Your task to perform on an android device: check out phone information Image 0: 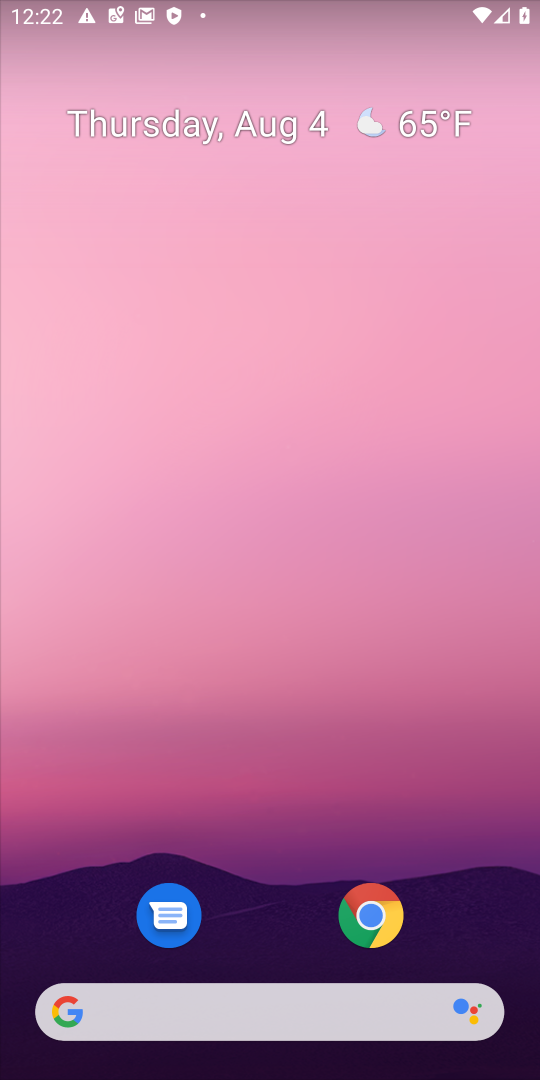
Step 0: drag from (271, 852) to (335, 55)
Your task to perform on an android device: check out phone information Image 1: 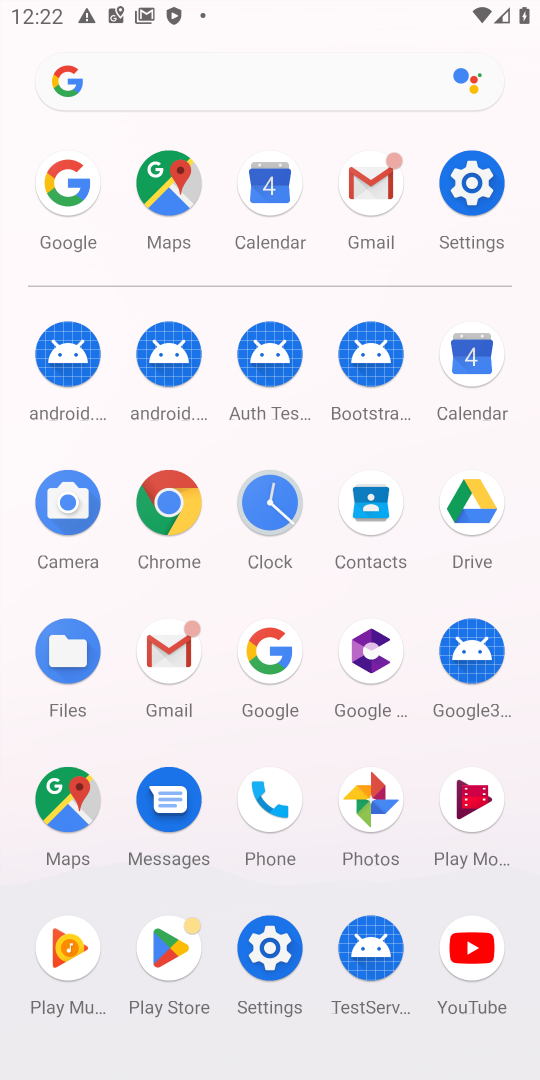
Step 1: click (474, 177)
Your task to perform on an android device: check out phone information Image 2: 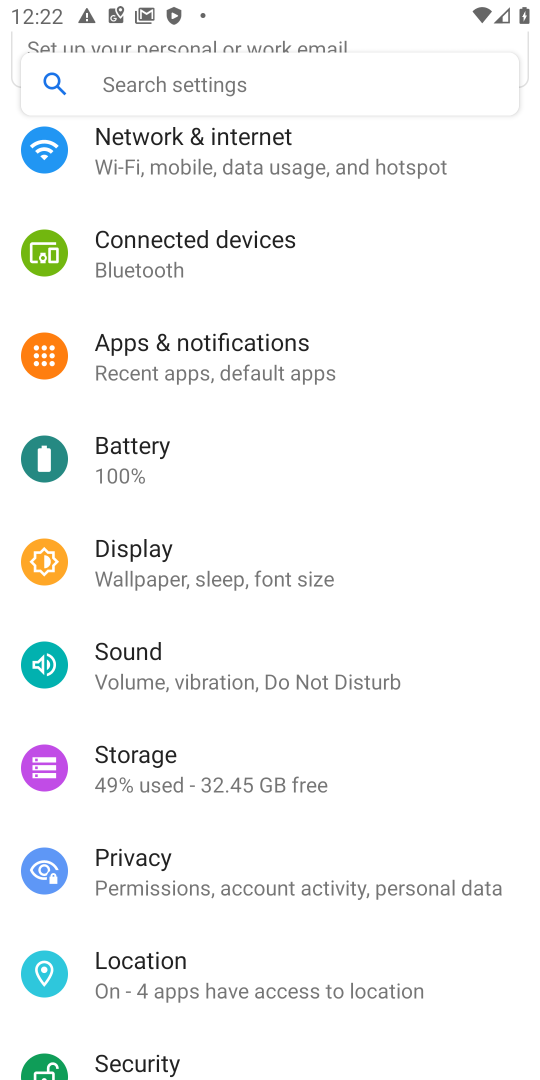
Step 2: drag from (214, 699) to (217, 241)
Your task to perform on an android device: check out phone information Image 3: 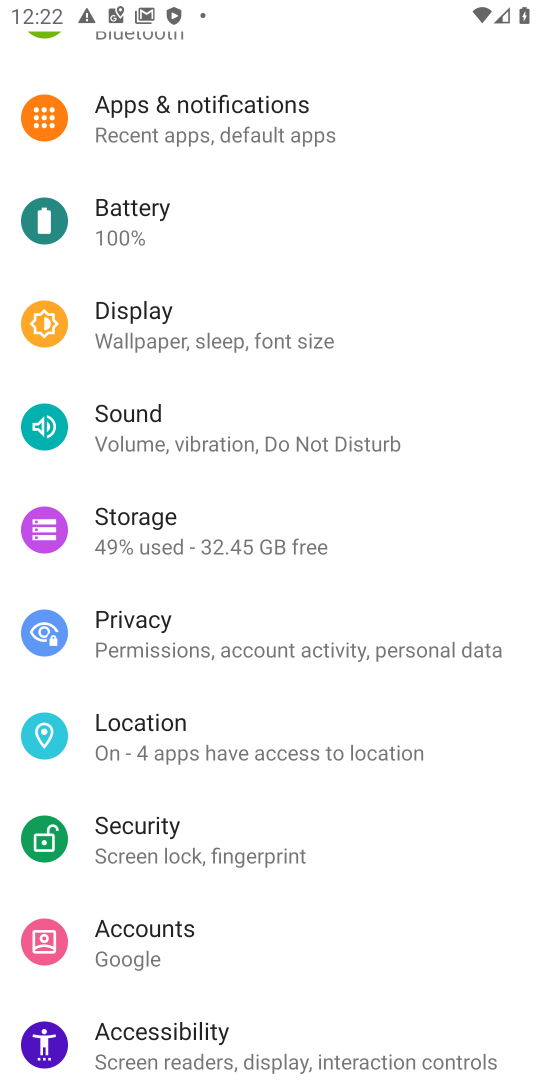
Step 3: drag from (239, 611) to (246, 450)
Your task to perform on an android device: check out phone information Image 4: 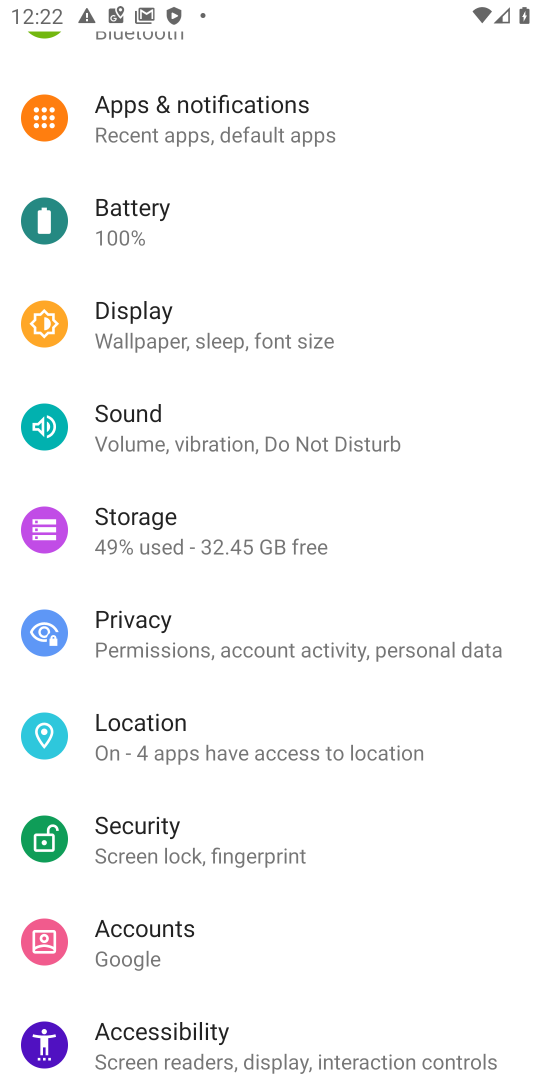
Step 4: drag from (280, 827) to (213, 637)
Your task to perform on an android device: check out phone information Image 5: 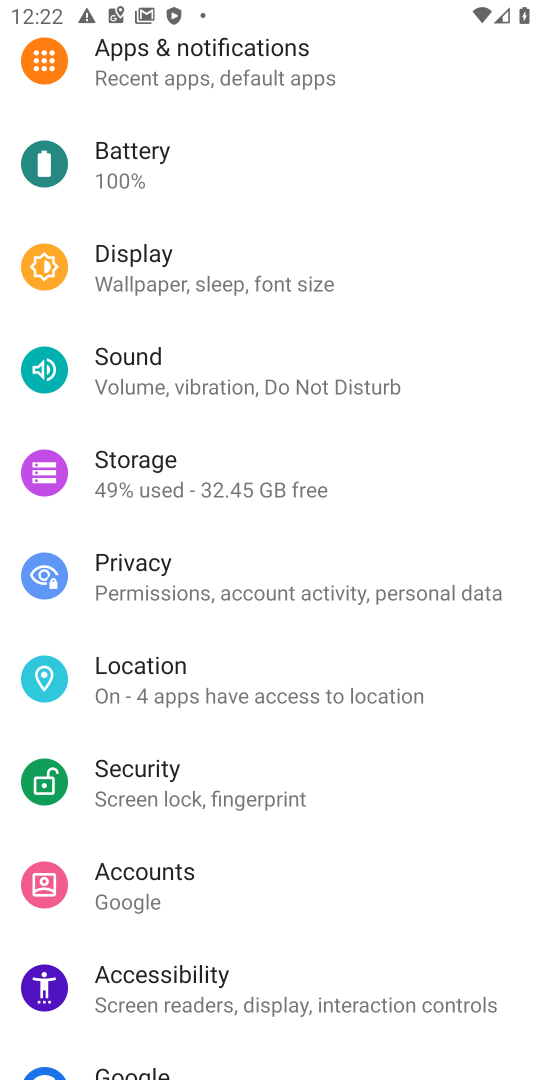
Step 5: drag from (270, 959) to (257, 809)
Your task to perform on an android device: check out phone information Image 6: 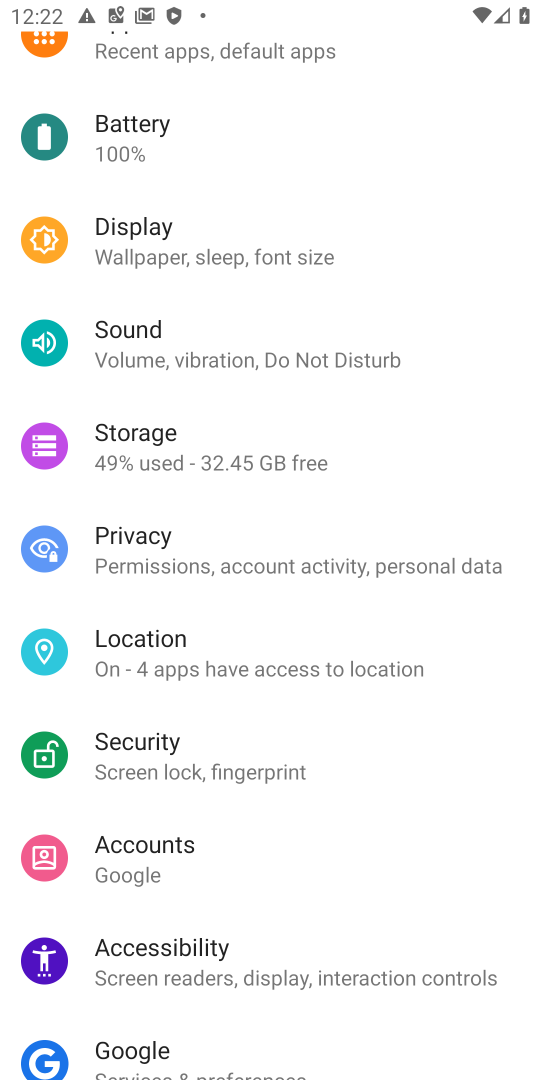
Step 6: drag from (279, 920) to (276, 731)
Your task to perform on an android device: check out phone information Image 7: 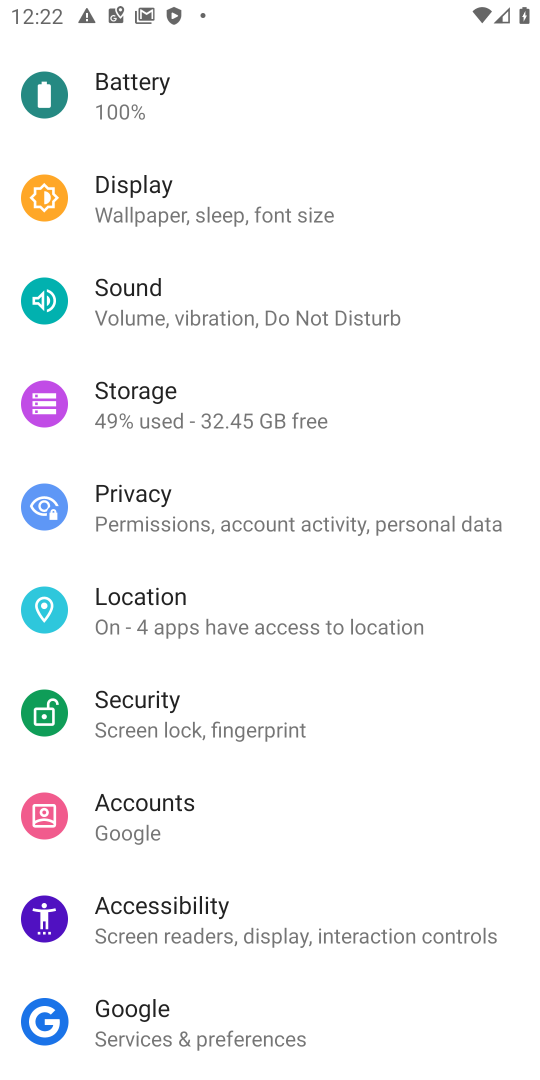
Step 7: drag from (299, 937) to (299, 697)
Your task to perform on an android device: check out phone information Image 8: 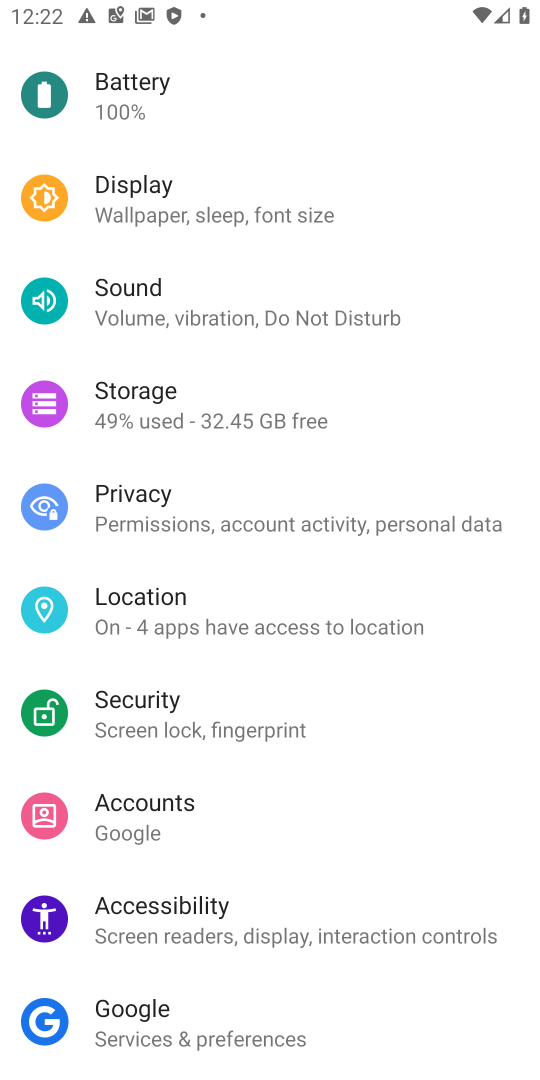
Step 8: drag from (296, 914) to (272, 736)
Your task to perform on an android device: check out phone information Image 9: 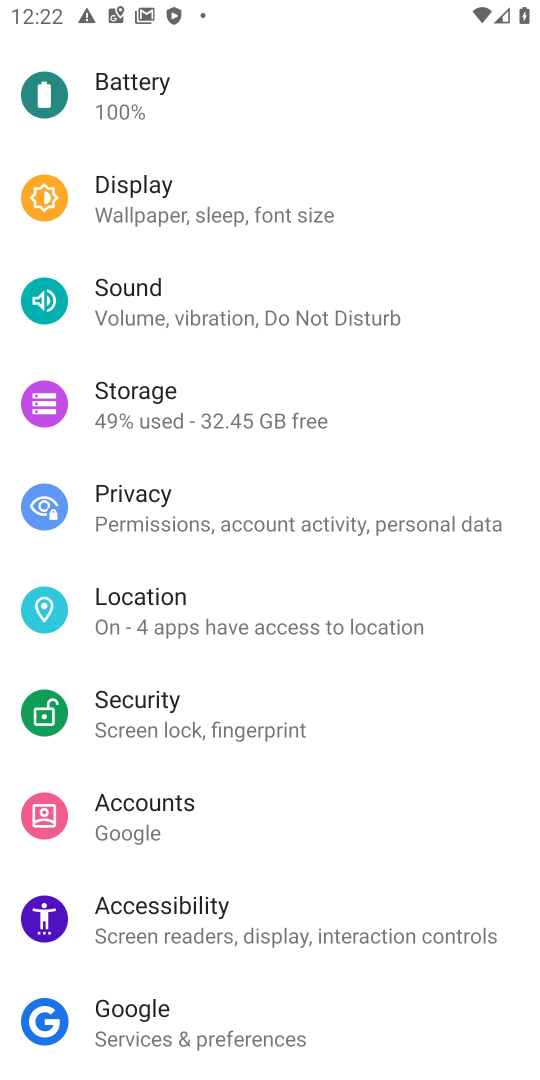
Step 9: drag from (256, 874) to (210, 633)
Your task to perform on an android device: check out phone information Image 10: 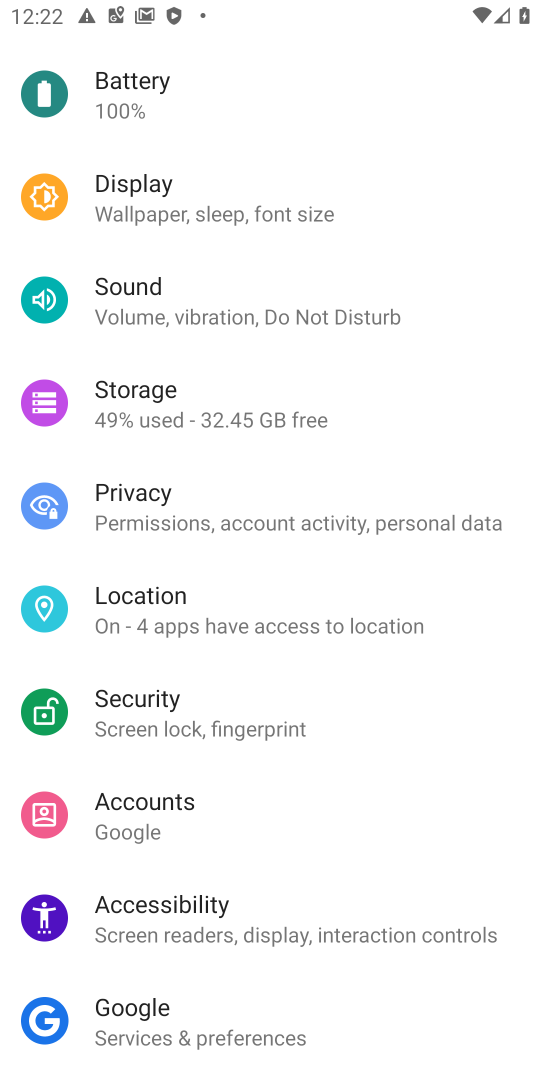
Step 10: drag from (285, 887) to (232, 631)
Your task to perform on an android device: check out phone information Image 11: 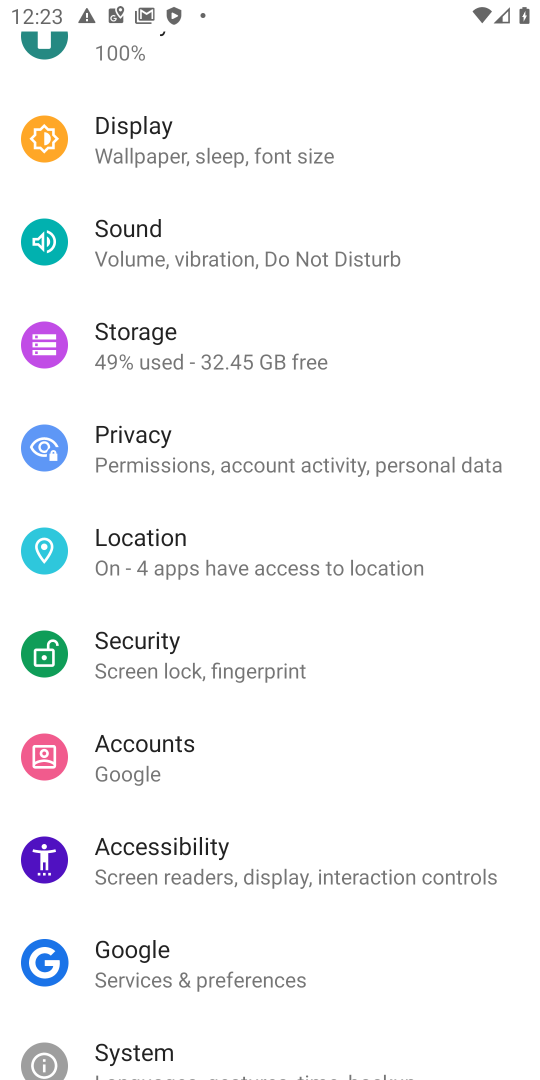
Step 11: drag from (338, 971) to (145, 402)
Your task to perform on an android device: check out phone information Image 12: 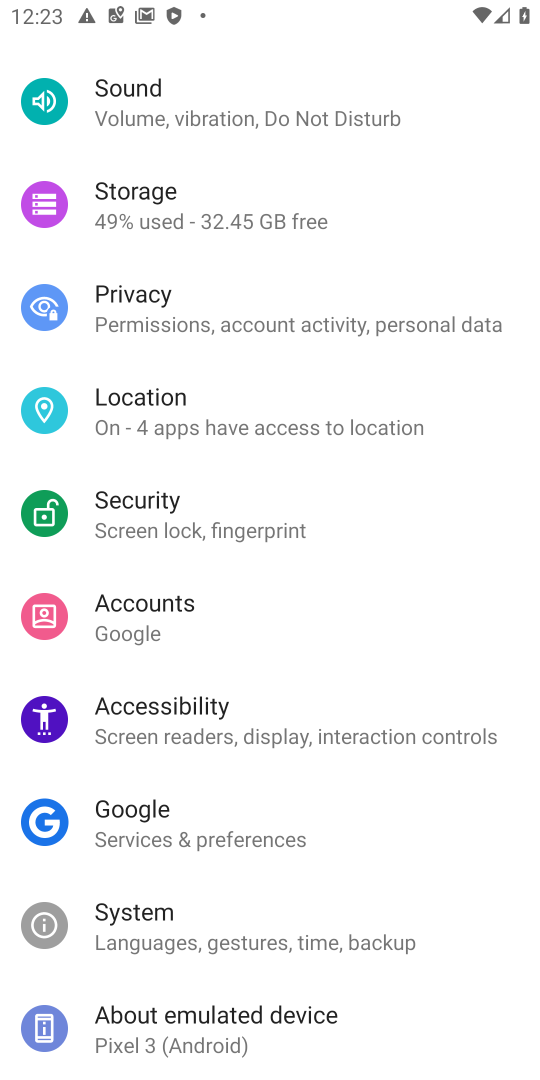
Step 12: click (259, 1035)
Your task to perform on an android device: check out phone information Image 13: 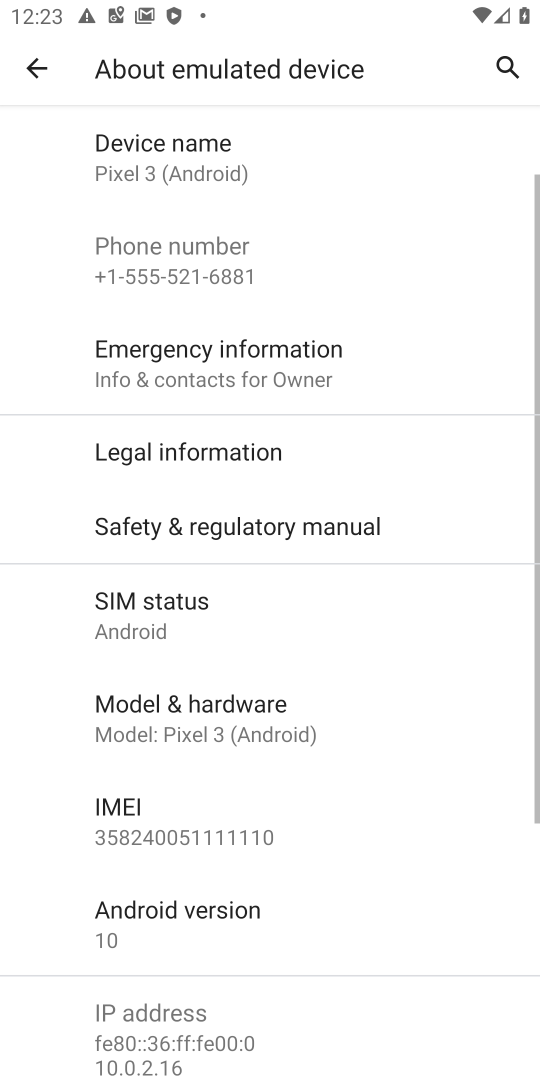
Step 13: task complete